Your task to perform on an android device: uninstall "File Manager" Image 0: 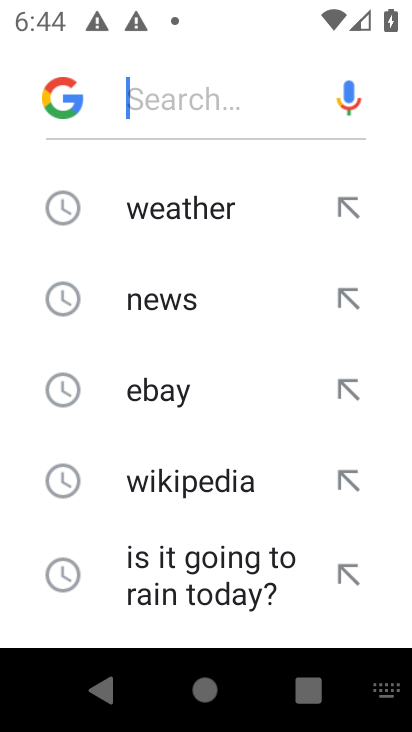
Step 0: press home button
Your task to perform on an android device: uninstall "File Manager" Image 1: 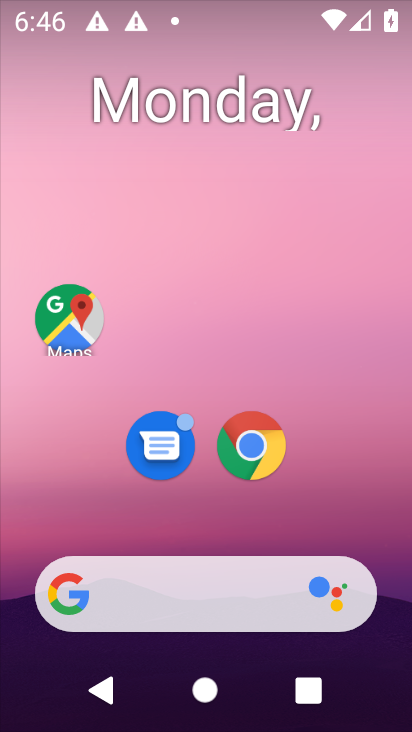
Step 1: drag from (388, 562) to (293, 20)
Your task to perform on an android device: uninstall "File Manager" Image 2: 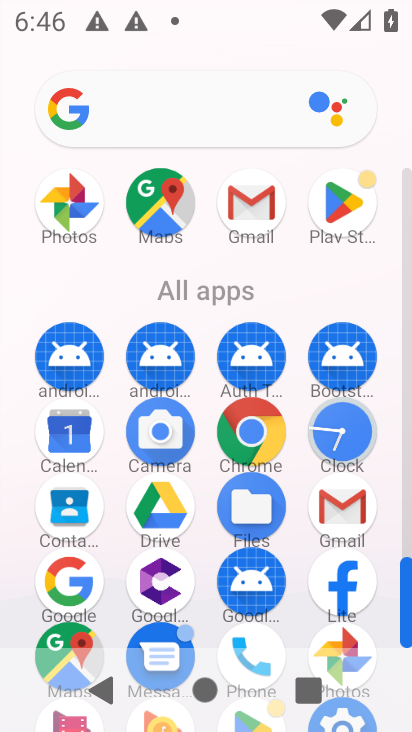
Step 2: click (327, 206)
Your task to perform on an android device: uninstall "File Manager" Image 3: 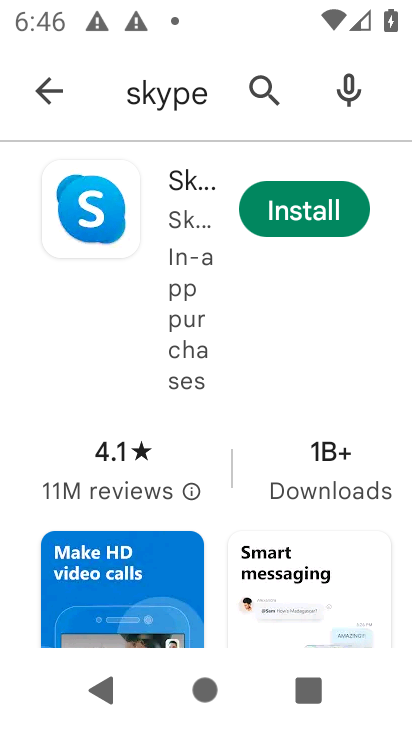
Step 3: press back button
Your task to perform on an android device: uninstall "File Manager" Image 4: 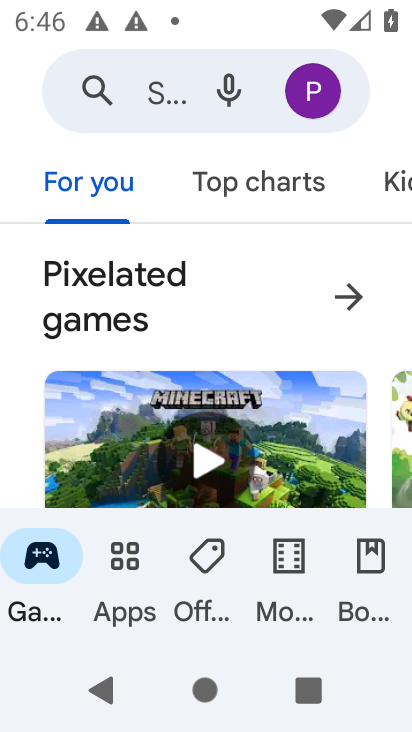
Step 4: click (164, 89)
Your task to perform on an android device: uninstall "File Manager" Image 5: 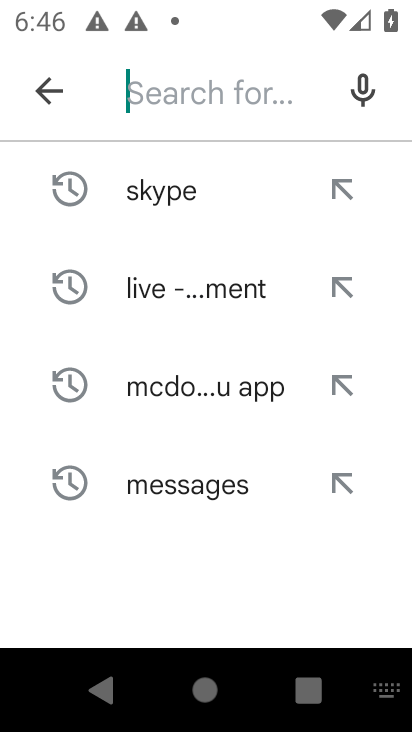
Step 5: type "File Manager"
Your task to perform on an android device: uninstall "File Manager" Image 6: 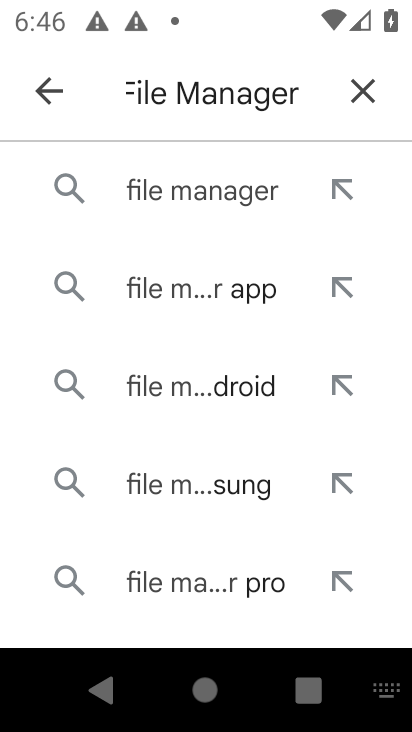
Step 6: click (183, 191)
Your task to perform on an android device: uninstall "File Manager" Image 7: 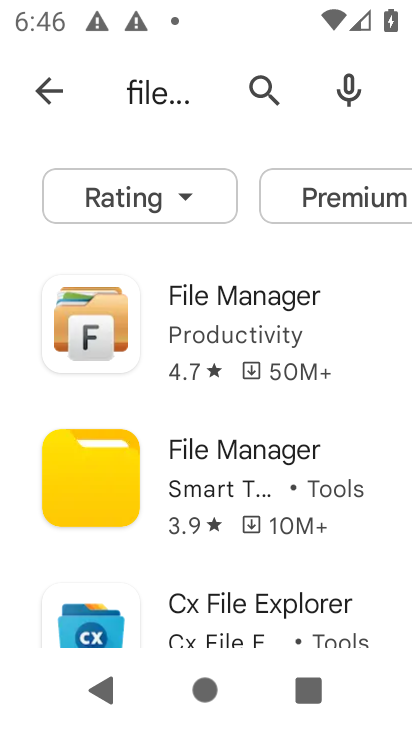
Step 7: task complete